Your task to perform on an android device: turn on bluetooth scan Image 0: 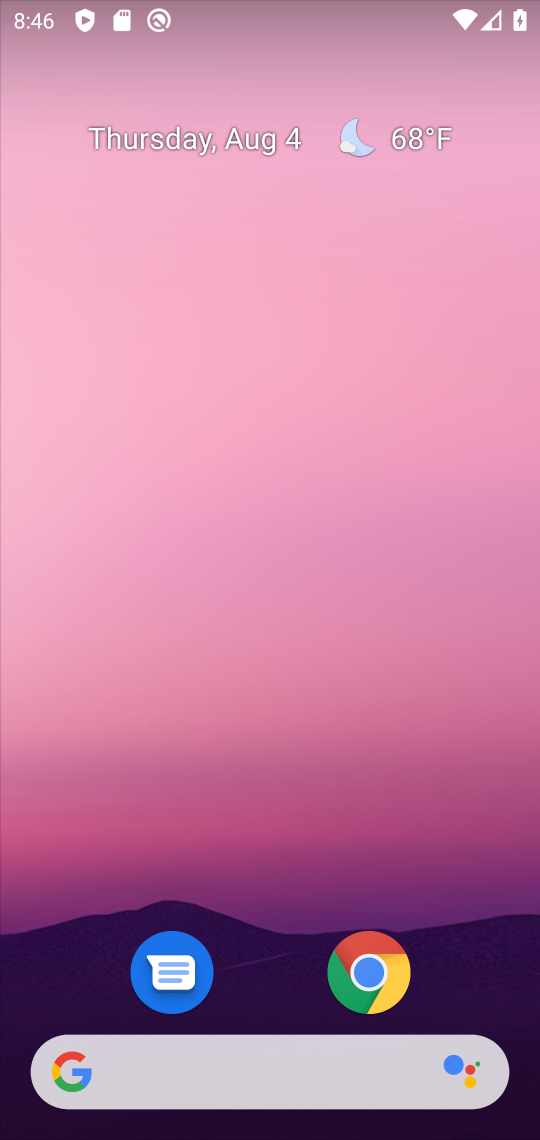
Step 0: drag from (349, 838) to (368, 44)
Your task to perform on an android device: turn on bluetooth scan Image 1: 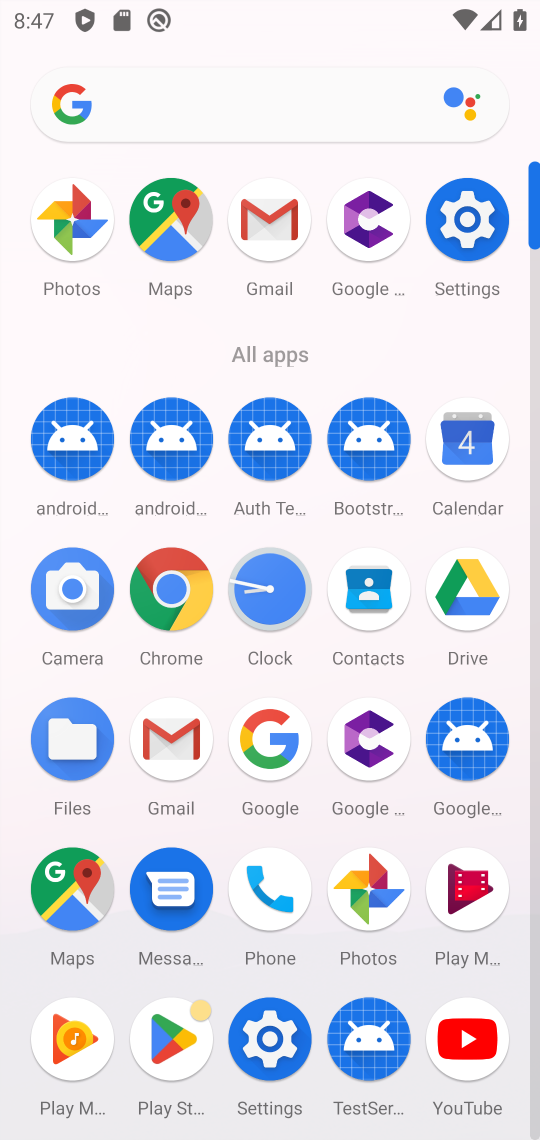
Step 1: click (442, 216)
Your task to perform on an android device: turn on bluetooth scan Image 2: 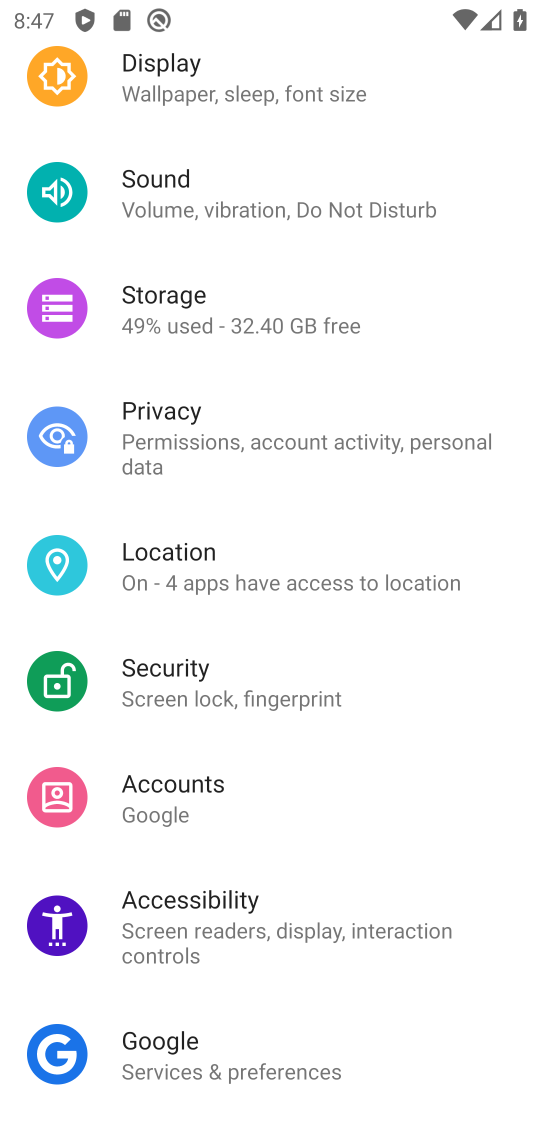
Step 2: click (263, 564)
Your task to perform on an android device: turn on bluetooth scan Image 3: 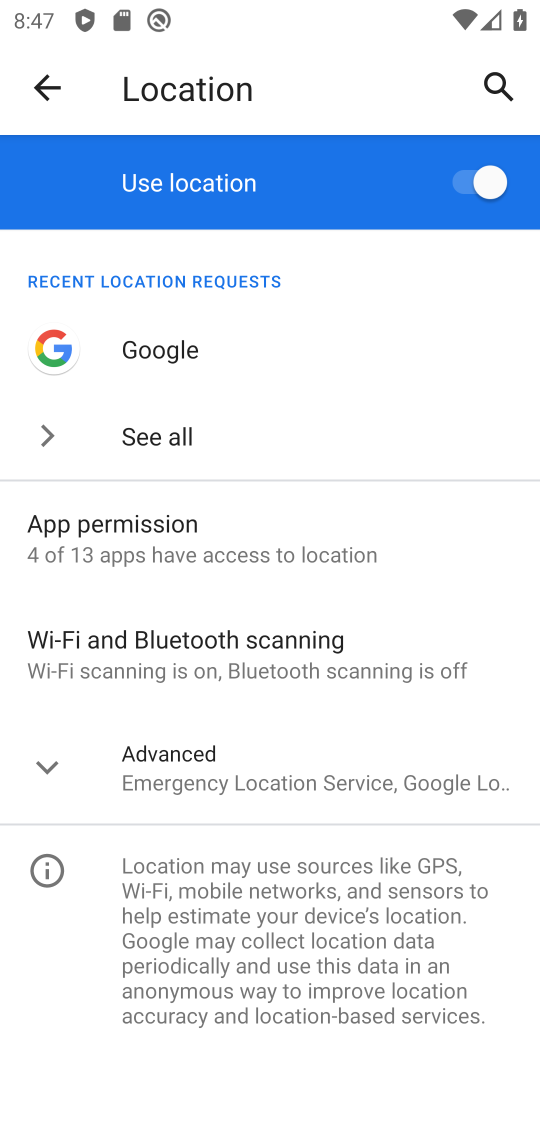
Step 3: click (275, 643)
Your task to perform on an android device: turn on bluetooth scan Image 4: 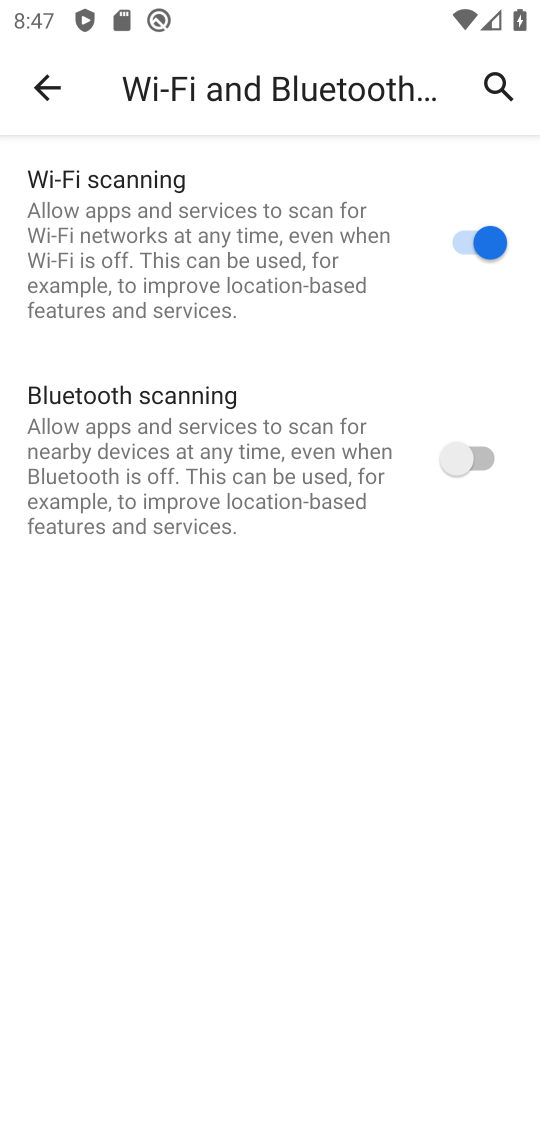
Step 4: click (466, 450)
Your task to perform on an android device: turn on bluetooth scan Image 5: 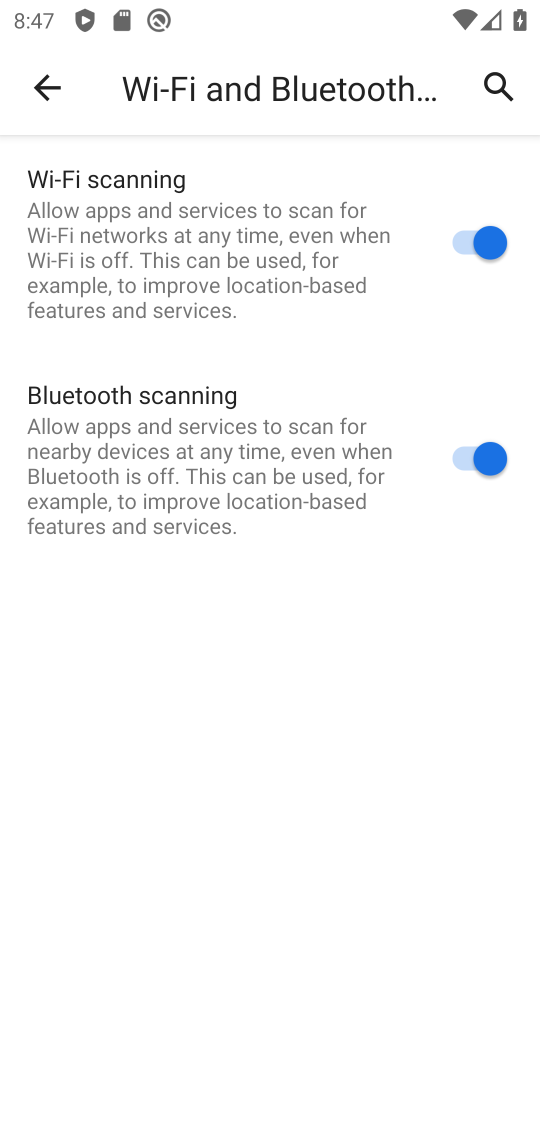
Step 5: task complete